Your task to perform on an android device: Open ESPN.com Image 0: 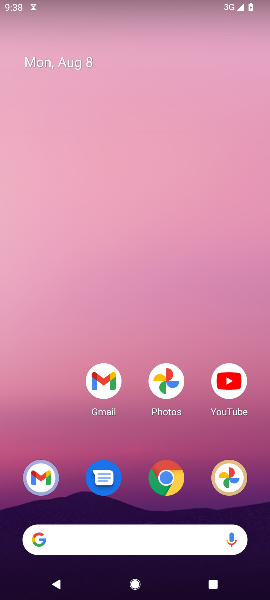
Step 0: click (165, 475)
Your task to perform on an android device: Open ESPN.com Image 1: 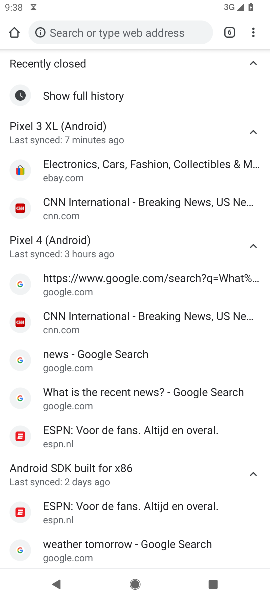
Step 1: drag from (250, 35) to (204, 89)
Your task to perform on an android device: Open ESPN.com Image 2: 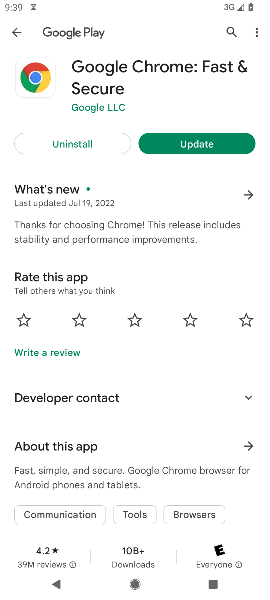
Step 2: press home button
Your task to perform on an android device: Open ESPN.com Image 3: 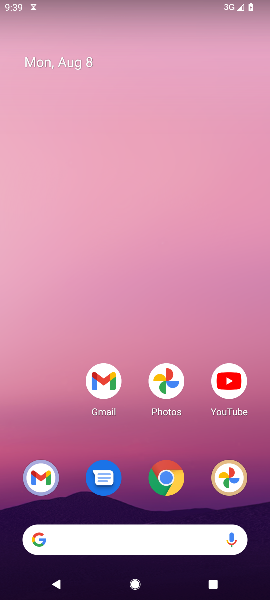
Step 3: click (166, 482)
Your task to perform on an android device: Open ESPN.com Image 4: 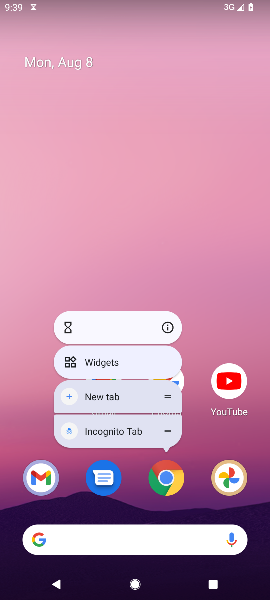
Step 4: click (167, 482)
Your task to perform on an android device: Open ESPN.com Image 5: 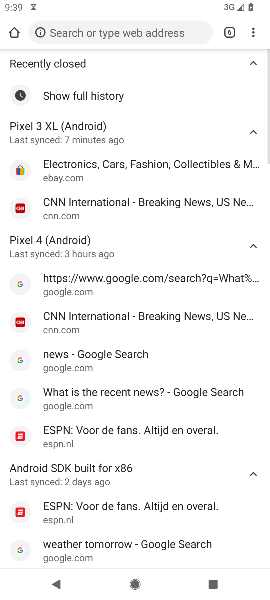
Step 5: drag from (252, 38) to (175, 116)
Your task to perform on an android device: Open ESPN.com Image 6: 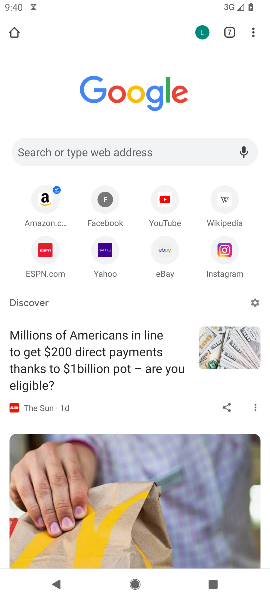
Step 6: click (39, 252)
Your task to perform on an android device: Open ESPN.com Image 7: 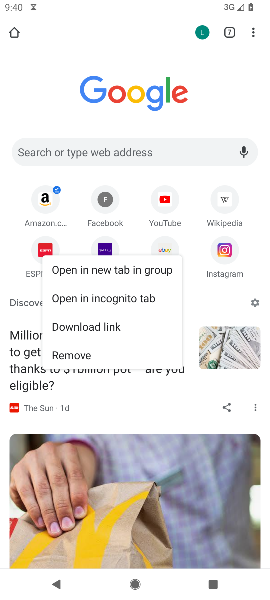
Step 7: click (43, 247)
Your task to perform on an android device: Open ESPN.com Image 8: 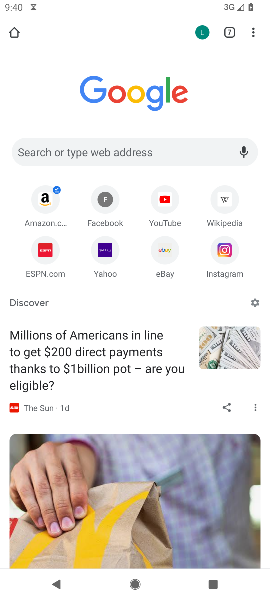
Step 8: click (49, 253)
Your task to perform on an android device: Open ESPN.com Image 9: 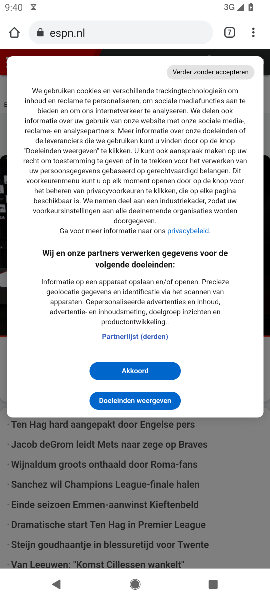
Step 9: click (137, 372)
Your task to perform on an android device: Open ESPN.com Image 10: 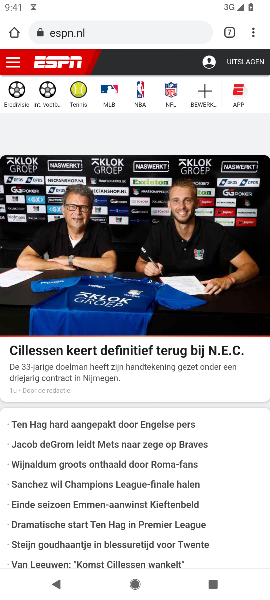
Step 10: task complete